Your task to perform on an android device: Open Chrome and go to the settings page Image 0: 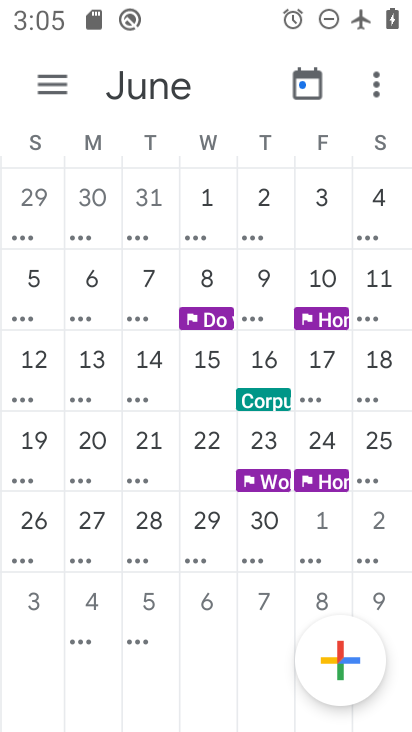
Step 0: press home button
Your task to perform on an android device: Open Chrome and go to the settings page Image 1: 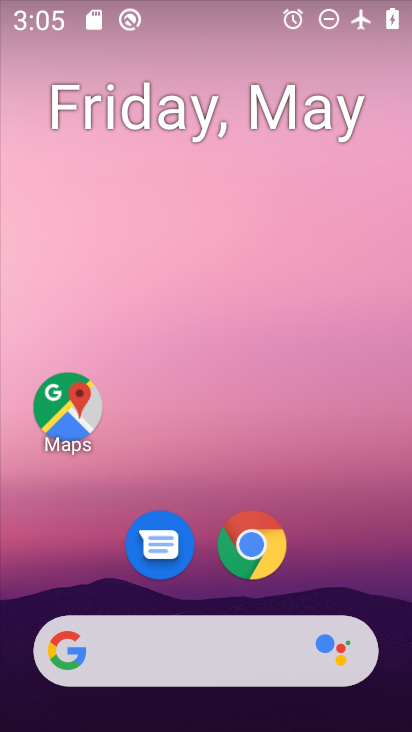
Step 1: click (264, 540)
Your task to perform on an android device: Open Chrome and go to the settings page Image 2: 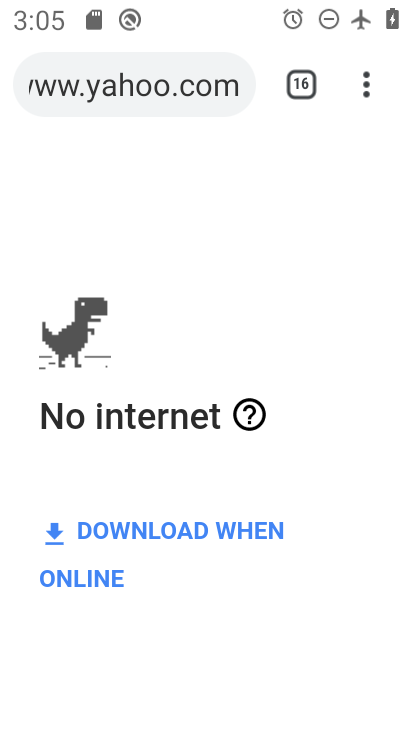
Step 2: click (369, 73)
Your task to perform on an android device: Open Chrome and go to the settings page Image 3: 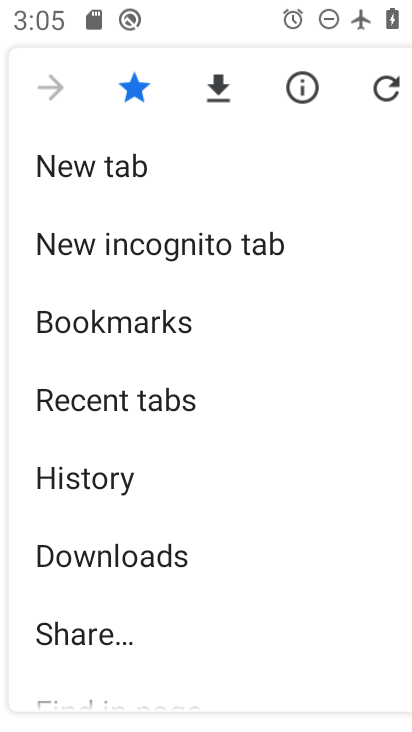
Step 3: drag from (229, 628) to (272, 253)
Your task to perform on an android device: Open Chrome and go to the settings page Image 4: 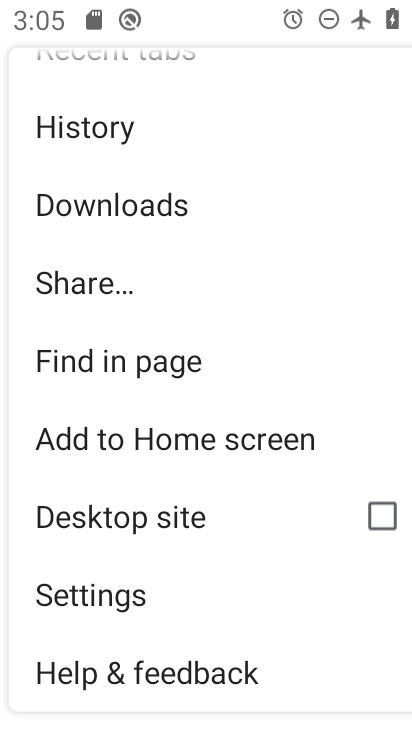
Step 4: click (106, 612)
Your task to perform on an android device: Open Chrome and go to the settings page Image 5: 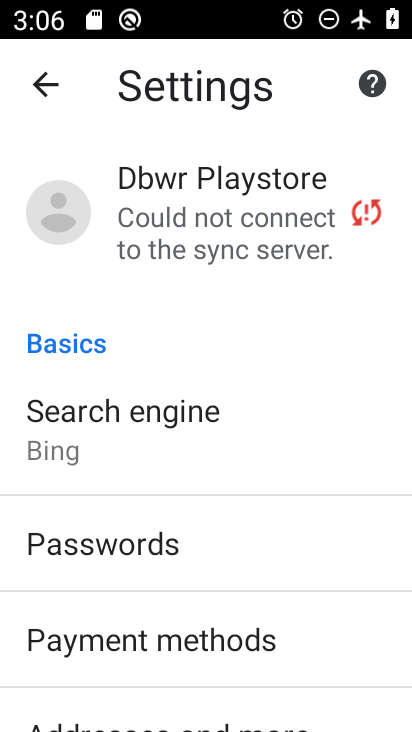
Step 5: task complete